Your task to perform on an android device: What's on my calendar today? Image 0: 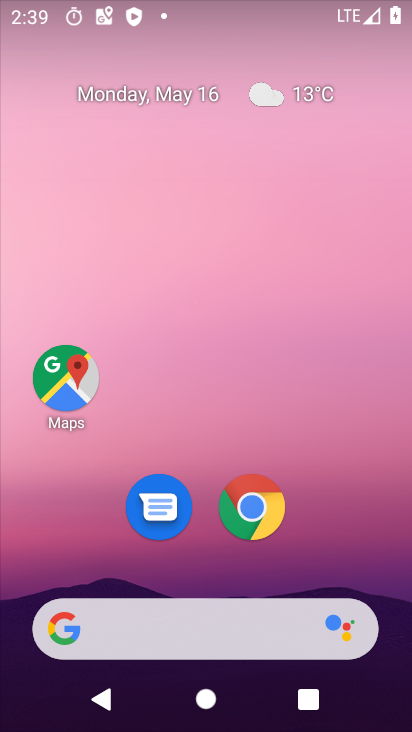
Step 0: drag from (346, 538) to (373, 79)
Your task to perform on an android device: What's on my calendar today? Image 1: 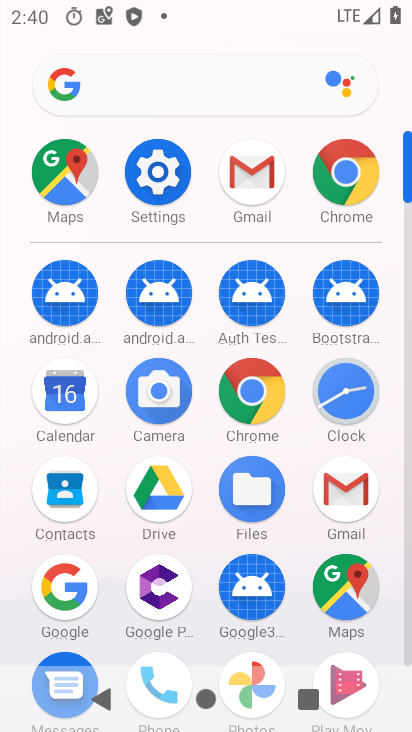
Step 1: click (70, 417)
Your task to perform on an android device: What's on my calendar today? Image 2: 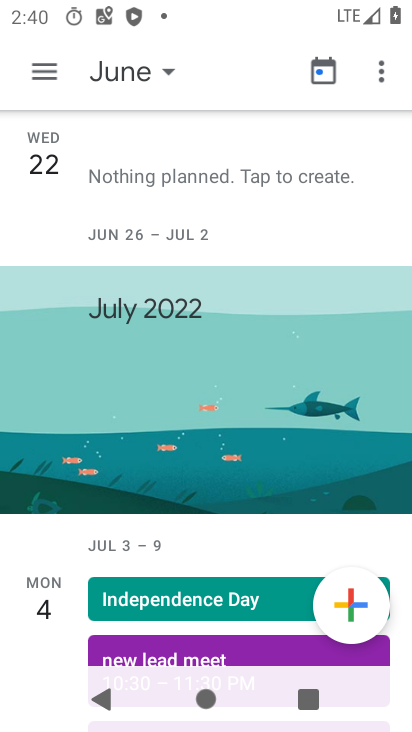
Step 2: click (172, 74)
Your task to perform on an android device: What's on my calendar today? Image 3: 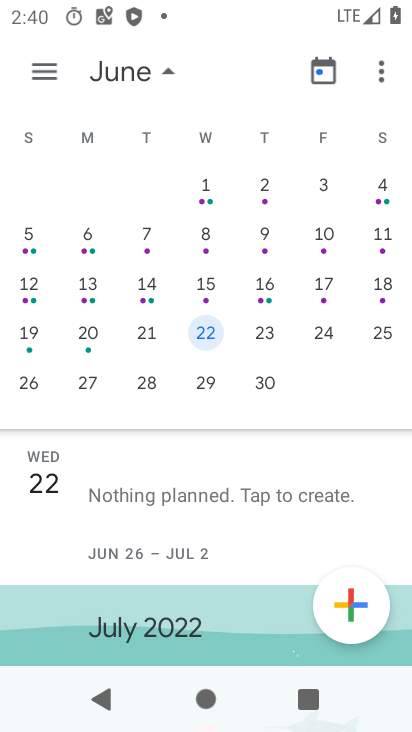
Step 3: drag from (34, 183) to (377, 180)
Your task to perform on an android device: What's on my calendar today? Image 4: 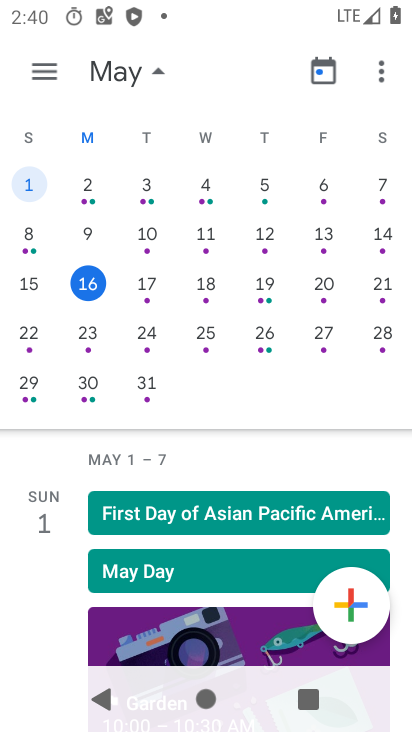
Step 4: click (82, 278)
Your task to perform on an android device: What's on my calendar today? Image 5: 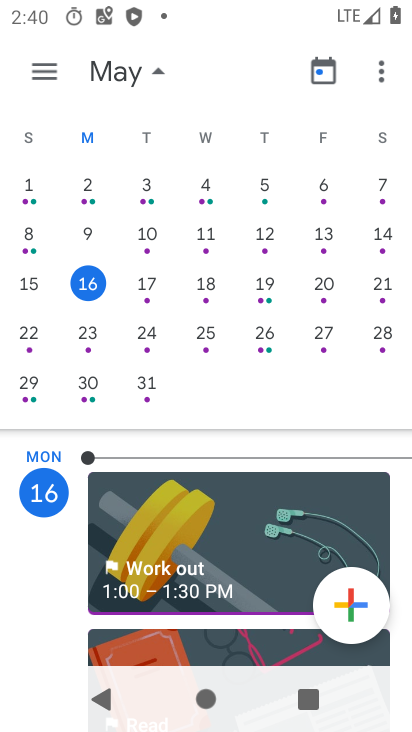
Step 5: click (217, 546)
Your task to perform on an android device: What's on my calendar today? Image 6: 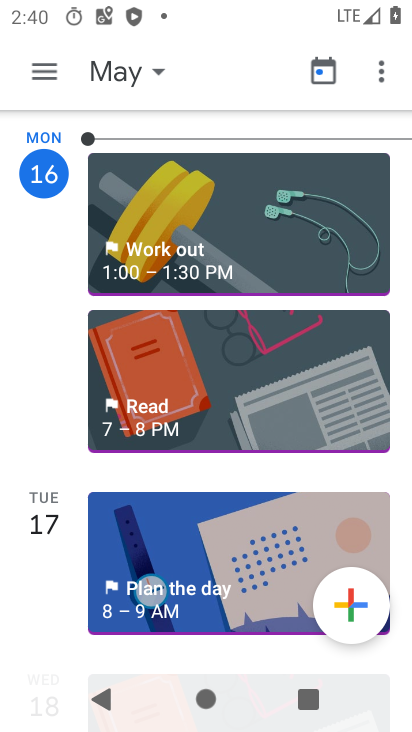
Step 6: task complete